Your task to perform on an android device: Go to Android settings Image 0: 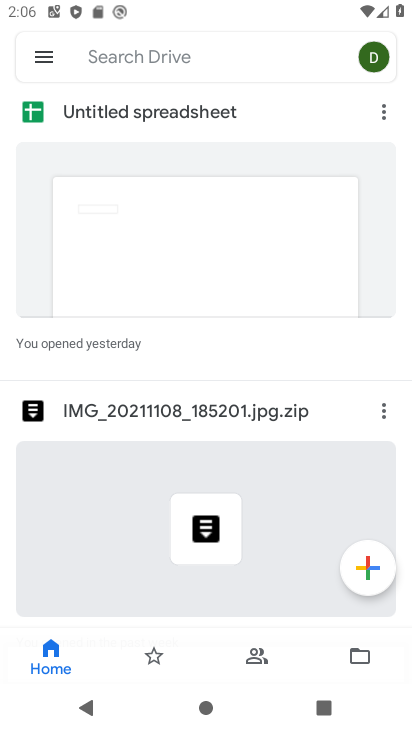
Step 0: press home button
Your task to perform on an android device: Go to Android settings Image 1: 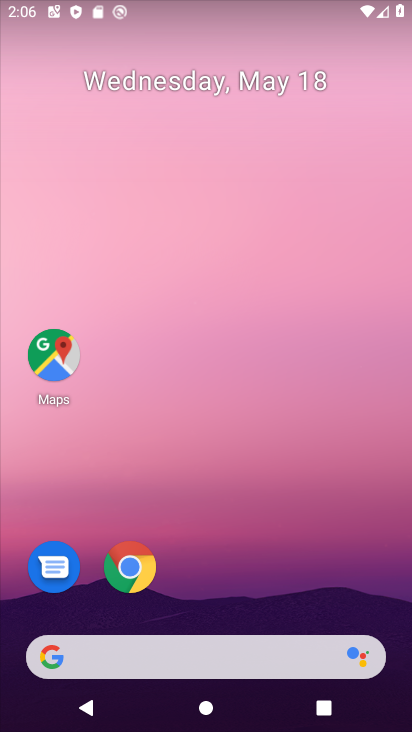
Step 1: drag from (247, 553) to (239, 106)
Your task to perform on an android device: Go to Android settings Image 2: 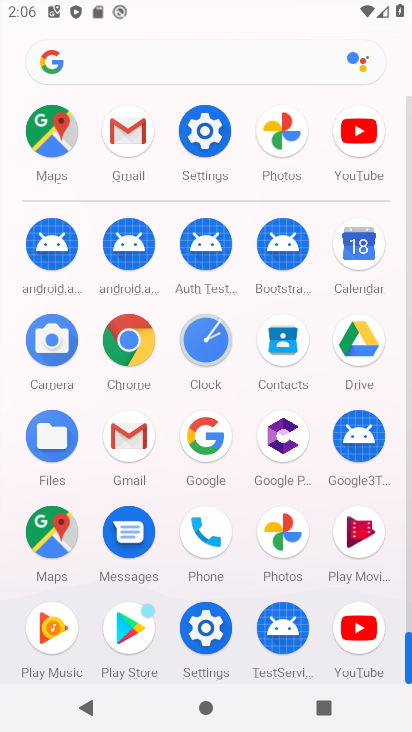
Step 2: click (224, 130)
Your task to perform on an android device: Go to Android settings Image 3: 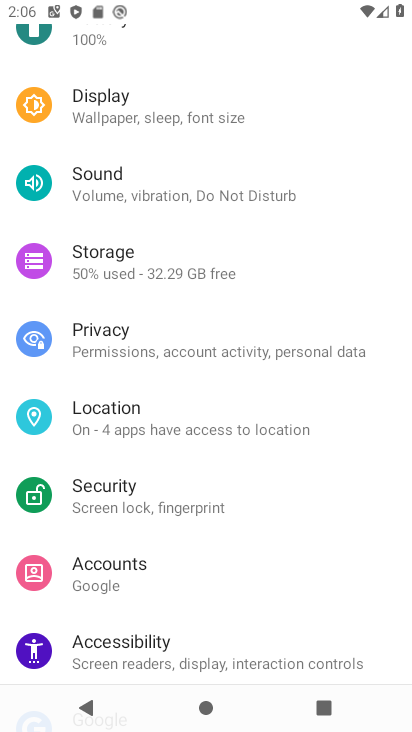
Step 3: task complete